Your task to perform on an android device: Search for vegetarian restaurants on Maps Image 0: 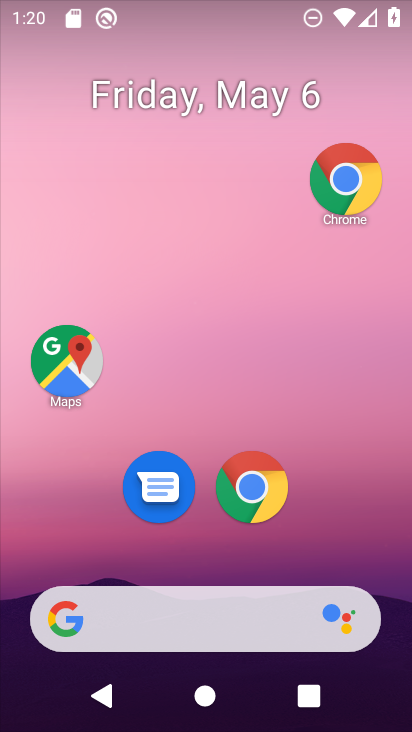
Step 0: click (45, 357)
Your task to perform on an android device: Search for vegetarian restaurants on Maps Image 1: 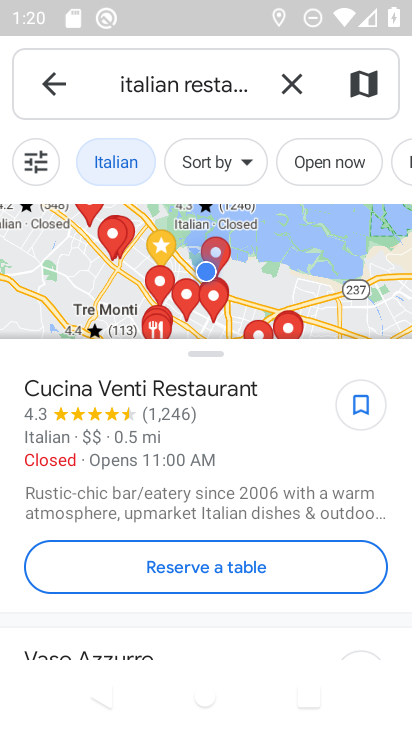
Step 1: click (288, 94)
Your task to perform on an android device: Search for vegetarian restaurants on Maps Image 2: 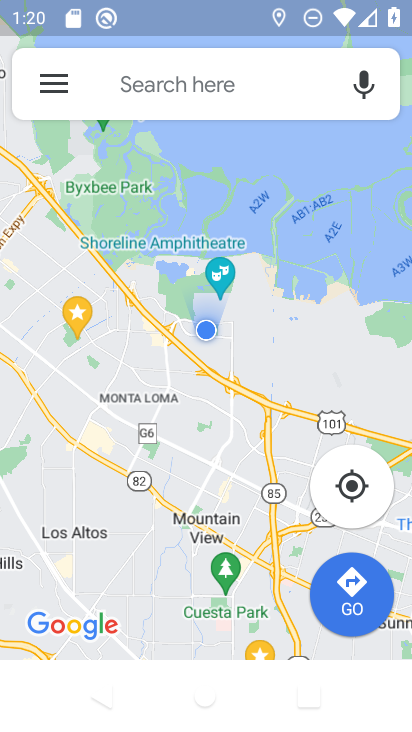
Step 2: click (235, 101)
Your task to perform on an android device: Search for vegetarian restaurants on Maps Image 3: 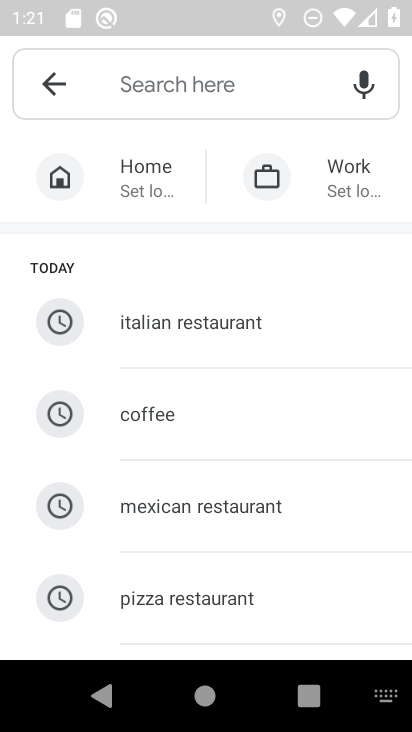
Step 3: drag from (216, 493) to (230, 298)
Your task to perform on an android device: Search for vegetarian restaurants on Maps Image 4: 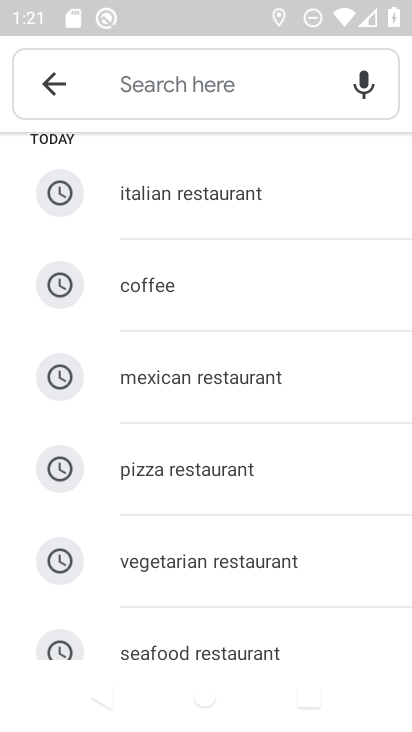
Step 4: click (230, 547)
Your task to perform on an android device: Search for vegetarian restaurants on Maps Image 5: 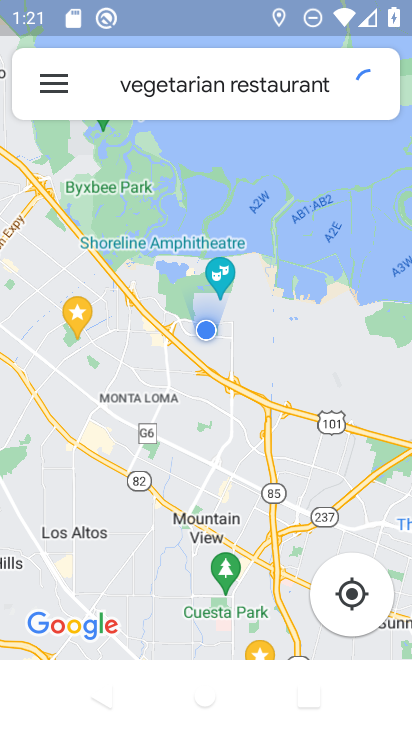
Step 5: task complete